Your task to perform on an android device: search for starred emails in the gmail app Image 0: 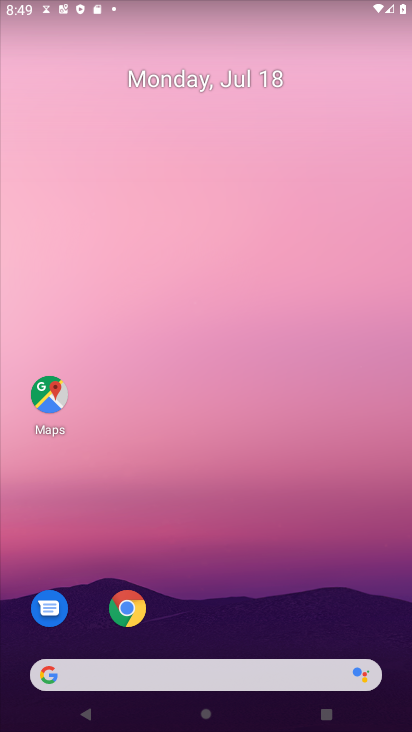
Step 0: drag from (239, 641) to (239, 53)
Your task to perform on an android device: search for starred emails in the gmail app Image 1: 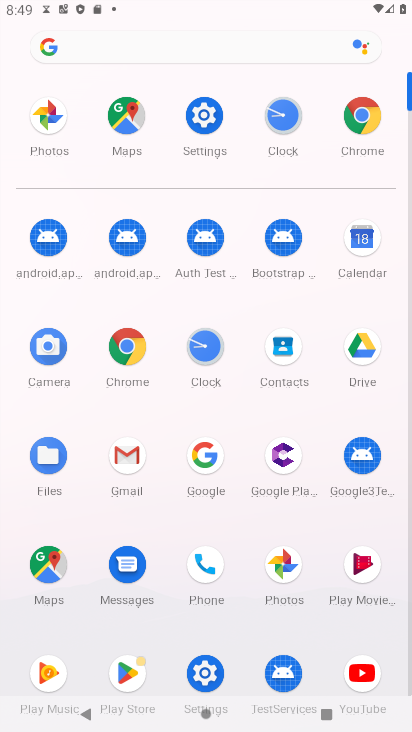
Step 1: click (131, 456)
Your task to perform on an android device: search for starred emails in the gmail app Image 2: 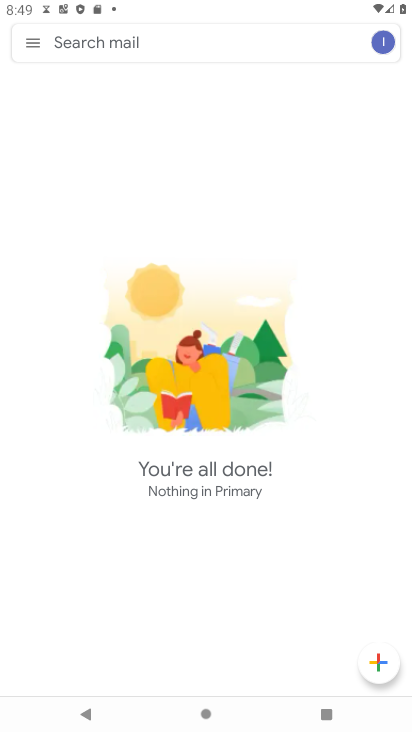
Step 2: click (32, 44)
Your task to perform on an android device: search for starred emails in the gmail app Image 3: 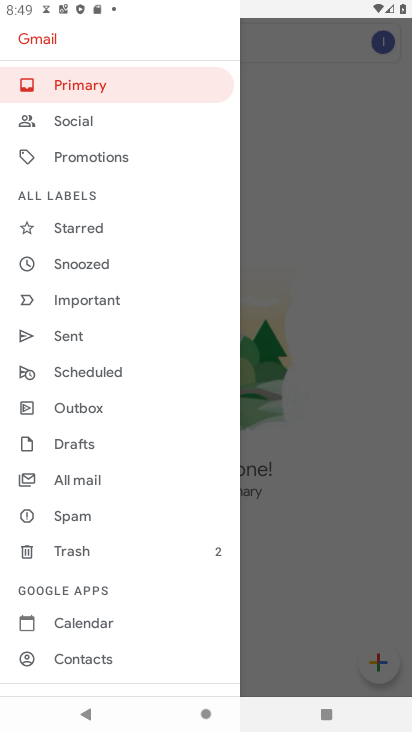
Step 3: click (86, 227)
Your task to perform on an android device: search for starred emails in the gmail app Image 4: 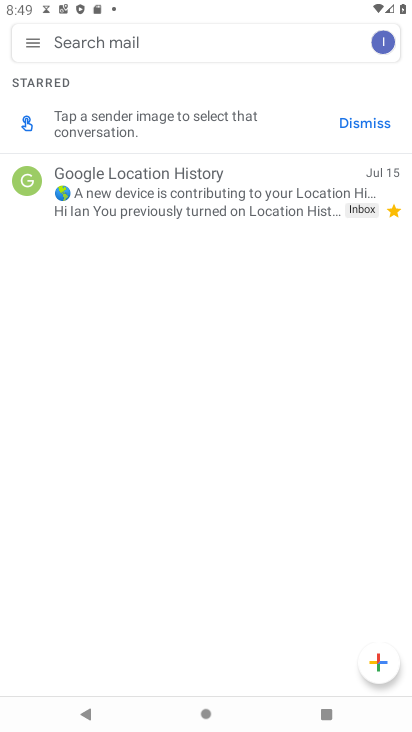
Step 4: task complete